Your task to perform on an android device: Go to Amazon Image 0: 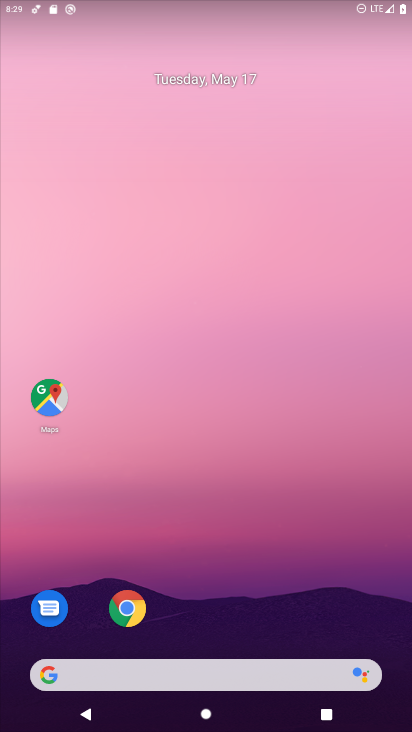
Step 0: click (134, 605)
Your task to perform on an android device: Go to Amazon Image 1: 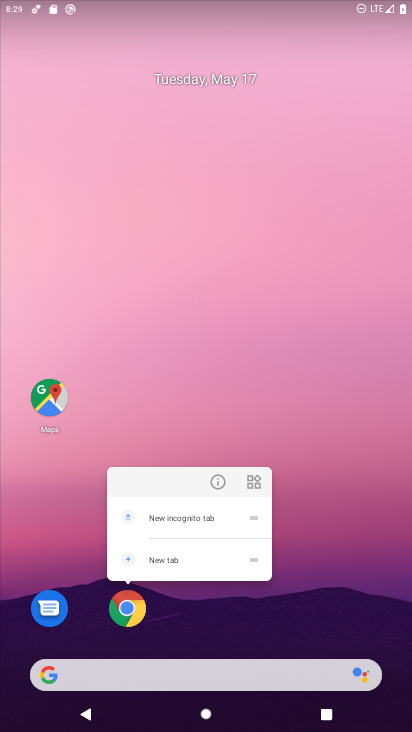
Step 1: click (132, 611)
Your task to perform on an android device: Go to Amazon Image 2: 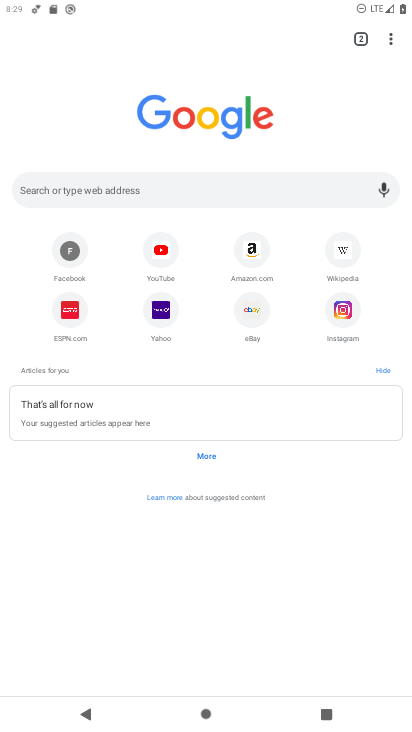
Step 2: click (252, 267)
Your task to perform on an android device: Go to Amazon Image 3: 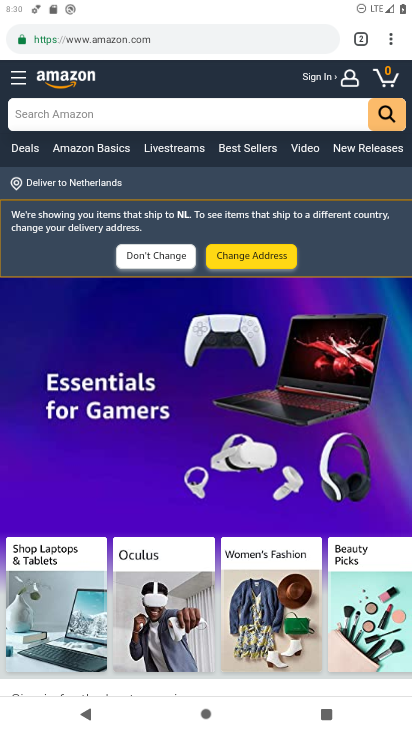
Step 3: task complete